Your task to perform on an android device: Open Chrome and go to the settings page Image 0: 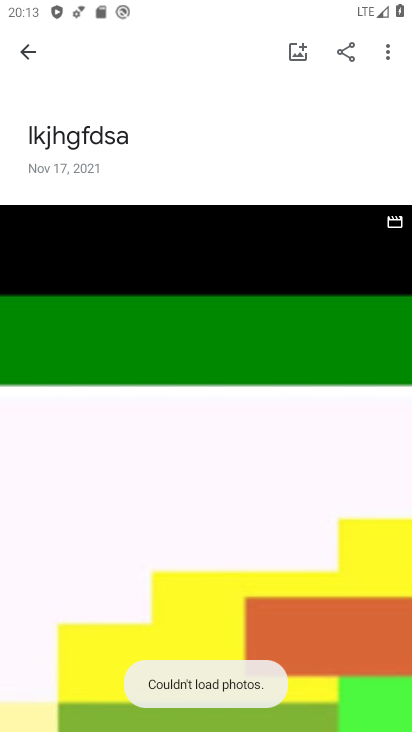
Step 0: press home button
Your task to perform on an android device: Open Chrome and go to the settings page Image 1: 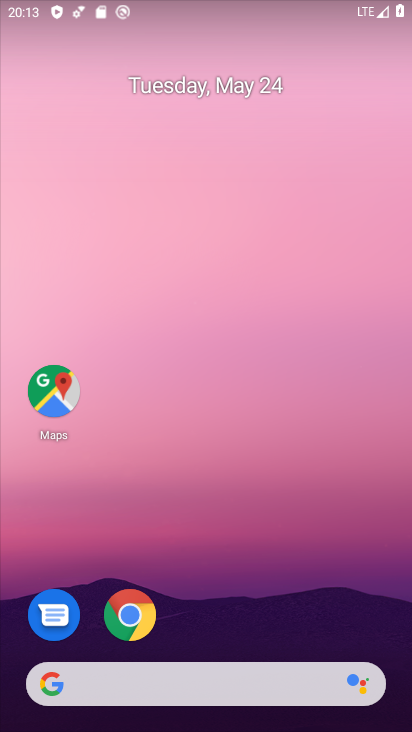
Step 1: click (119, 609)
Your task to perform on an android device: Open Chrome and go to the settings page Image 2: 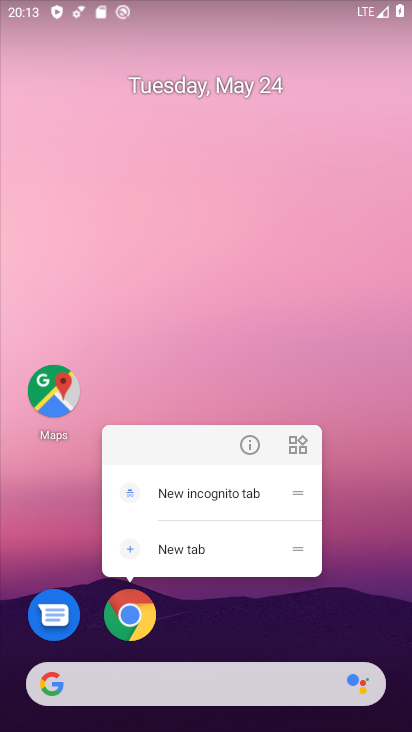
Step 2: click (125, 619)
Your task to perform on an android device: Open Chrome and go to the settings page Image 3: 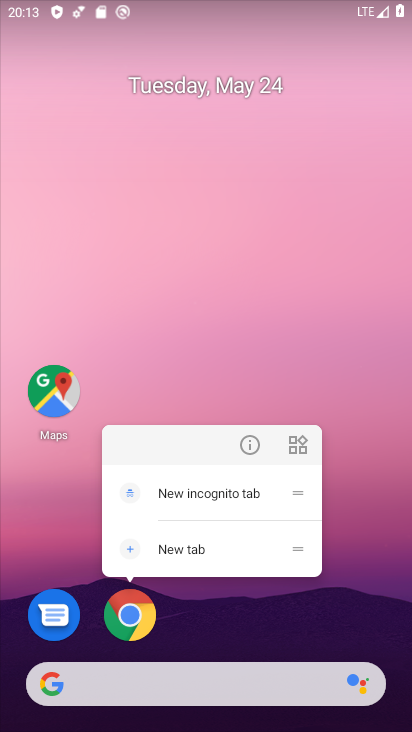
Step 3: click (125, 619)
Your task to perform on an android device: Open Chrome and go to the settings page Image 4: 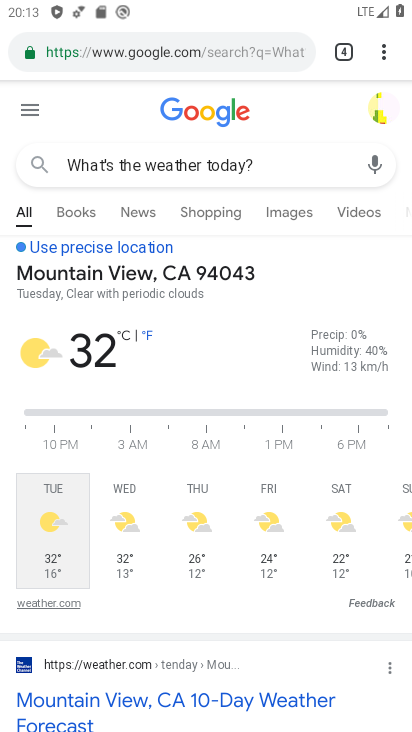
Step 4: click (390, 41)
Your task to perform on an android device: Open Chrome and go to the settings page Image 5: 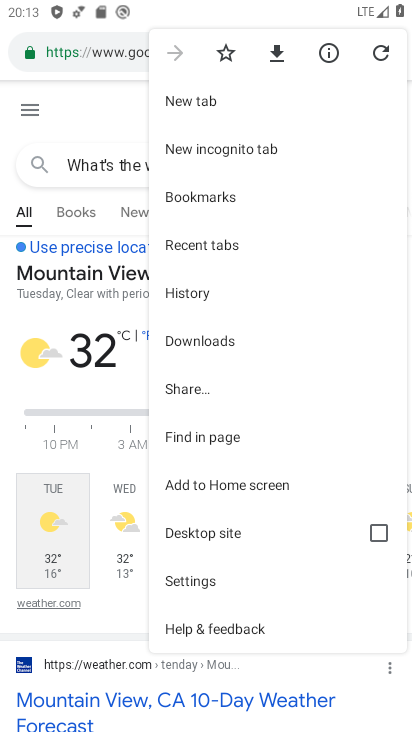
Step 5: drag from (228, 599) to (219, 529)
Your task to perform on an android device: Open Chrome and go to the settings page Image 6: 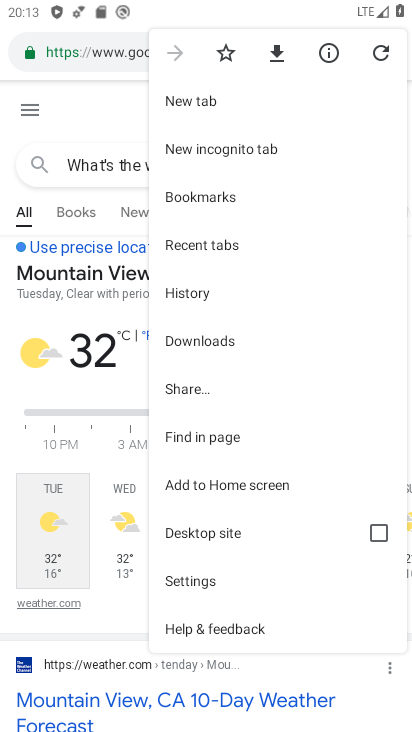
Step 6: click (210, 580)
Your task to perform on an android device: Open Chrome and go to the settings page Image 7: 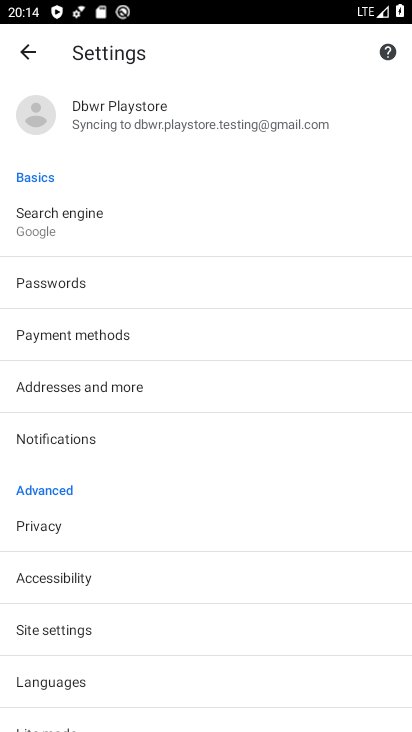
Step 7: task complete